Your task to perform on an android device: Open the calendar app, open the side menu, and click the "Day" option Image 0: 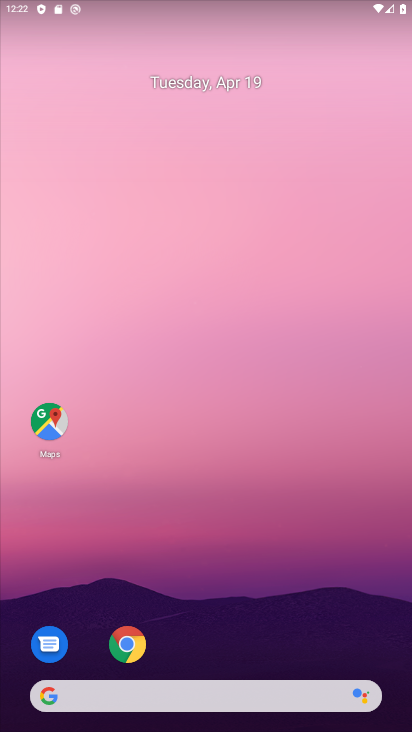
Step 0: drag from (201, 599) to (308, 139)
Your task to perform on an android device: Open the calendar app, open the side menu, and click the "Day" option Image 1: 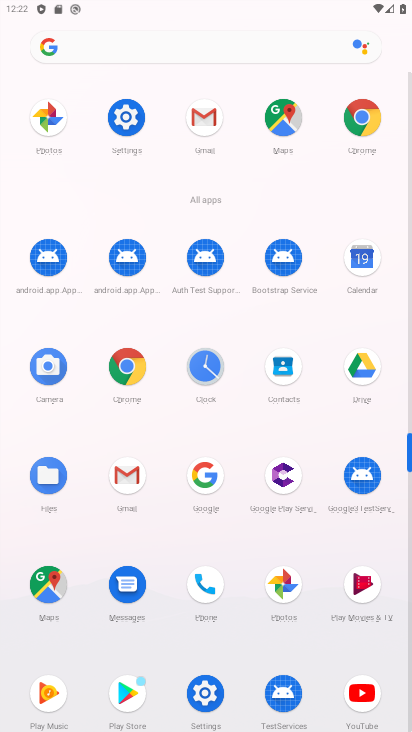
Step 1: click (351, 289)
Your task to perform on an android device: Open the calendar app, open the side menu, and click the "Day" option Image 2: 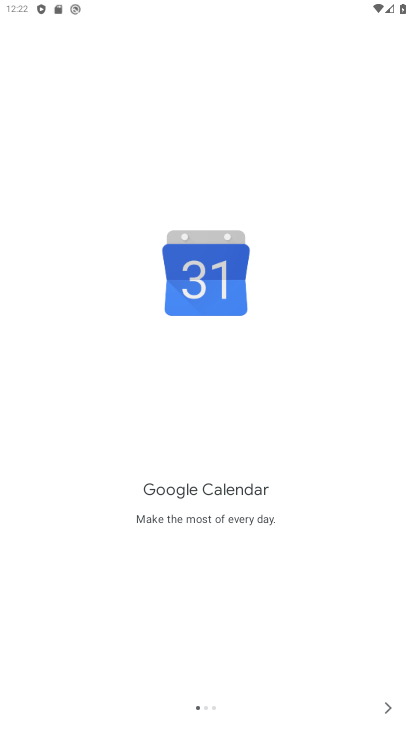
Step 2: click (391, 711)
Your task to perform on an android device: Open the calendar app, open the side menu, and click the "Day" option Image 3: 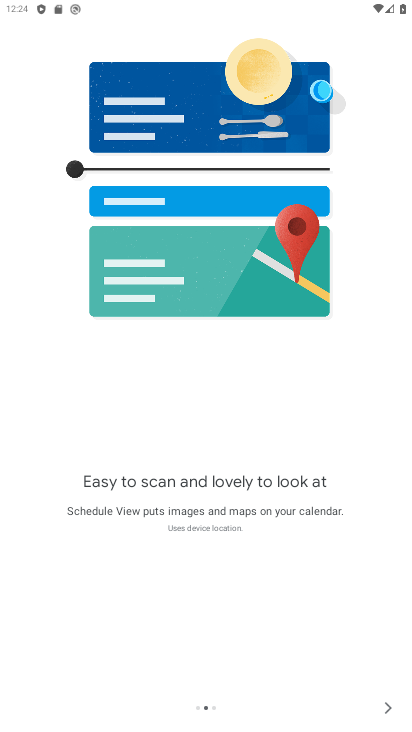
Step 3: press back button
Your task to perform on an android device: Open the calendar app, open the side menu, and click the "Day" option Image 4: 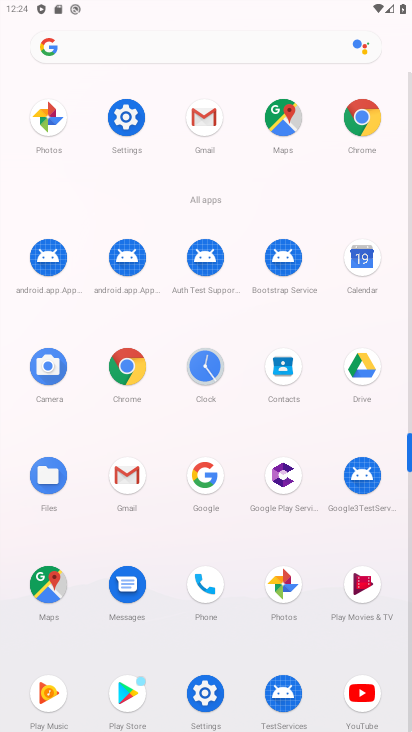
Step 4: click (357, 275)
Your task to perform on an android device: Open the calendar app, open the side menu, and click the "Day" option Image 5: 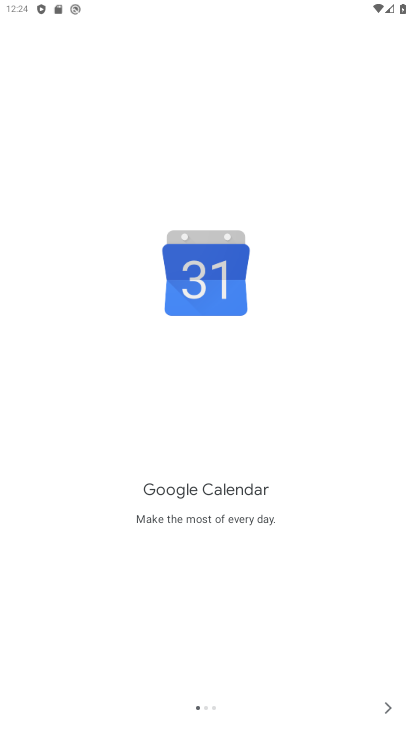
Step 5: click (388, 700)
Your task to perform on an android device: Open the calendar app, open the side menu, and click the "Day" option Image 6: 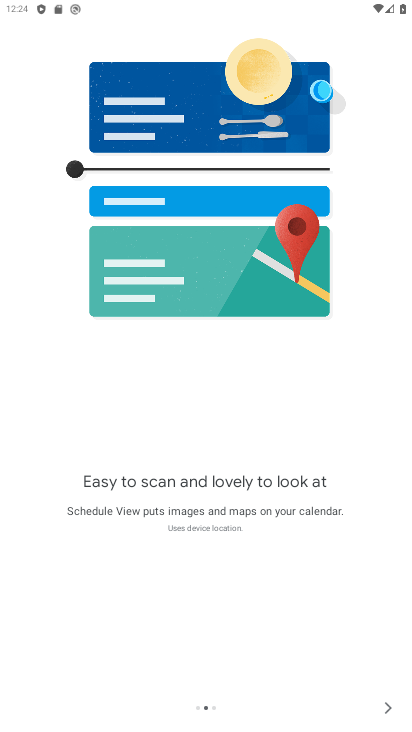
Step 6: click (387, 712)
Your task to perform on an android device: Open the calendar app, open the side menu, and click the "Day" option Image 7: 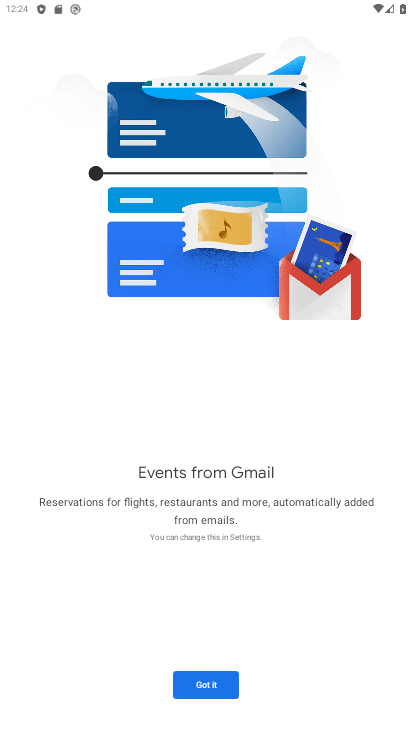
Step 7: click (387, 712)
Your task to perform on an android device: Open the calendar app, open the side menu, and click the "Day" option Image 8: 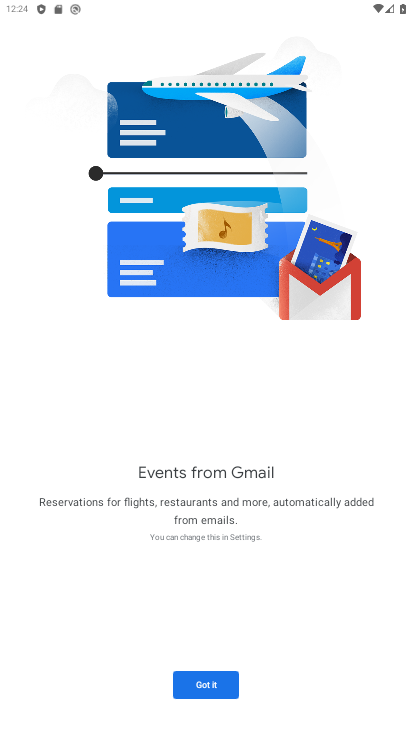
Step 8: click (202, 675)
Your task to perform on an android device: Open the calendar app, open the side menu, and click the "Day" option Image 9: 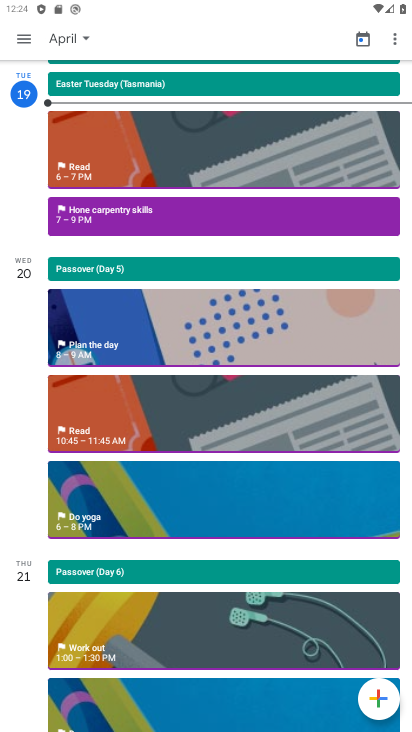
Step 9: click (18, 35)
Your task to perform on an android device: Open the calendar app, open the side menu, and click the "Day" option Image 10: 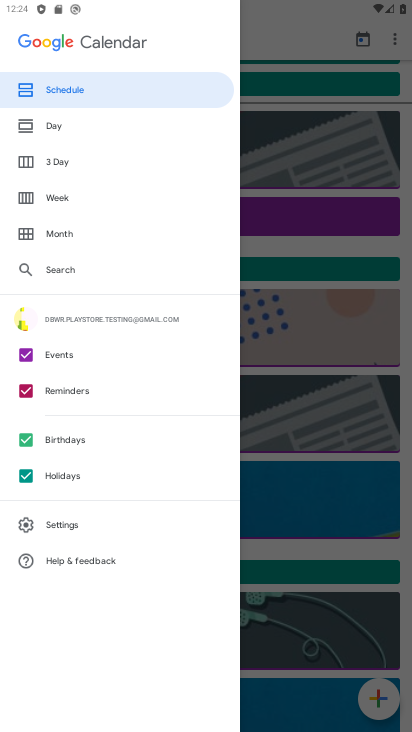
Step 10: task complete